Your task to perform on an android device: Open Chrome and go to the settings page Image 0: 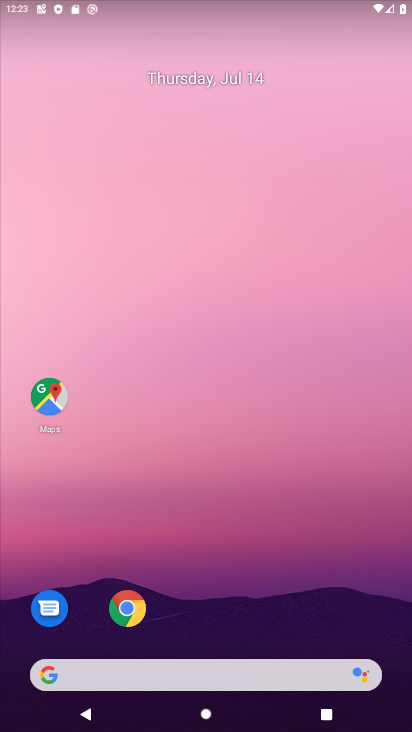
Step 0: click (136, 596)
Your task to perform on an android device: Open Chrome and go to the settings page Image 1: 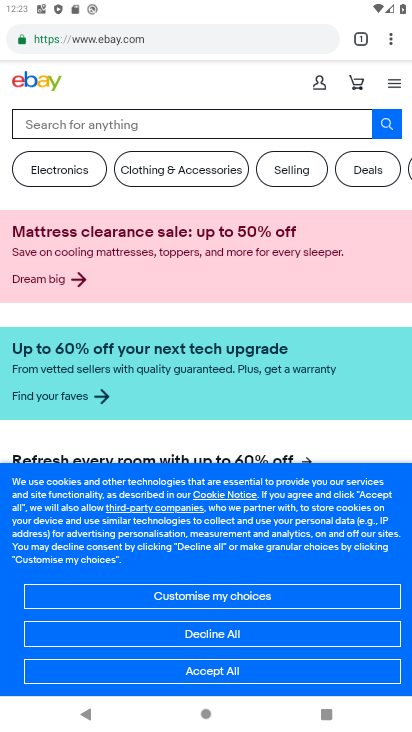
Step 1: task complete